Your task to perform on an android device: turn on improve location accuracy Image 0: 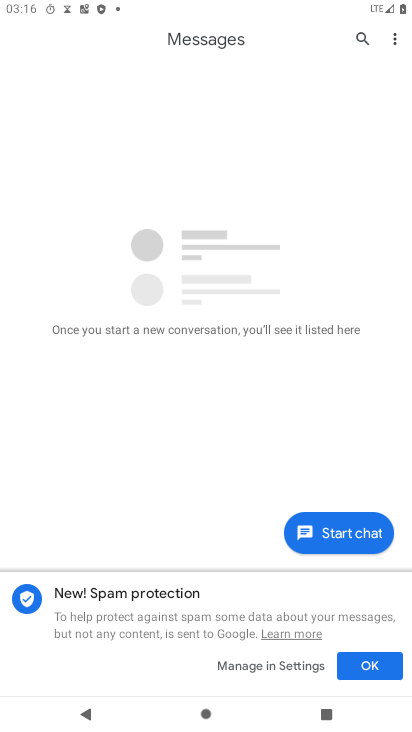
Step 0: press home button
Your task to perform on an android device: turn on improve location accuracy Image 1: 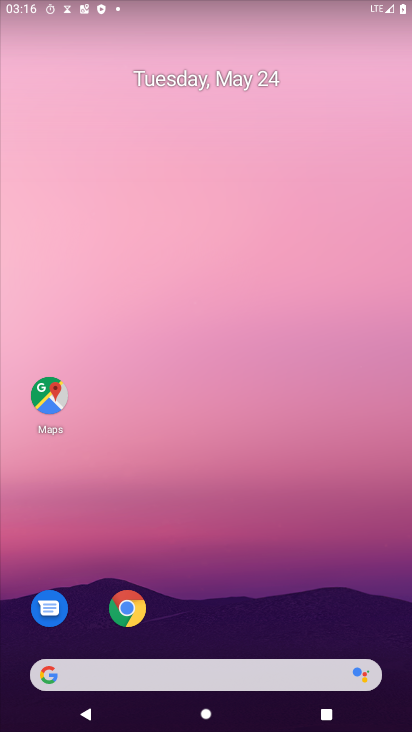
Step 1: drag from (249, 624) to (234, 213)
Your task to perform on an android device: turn on improve location accuracy Image 2: 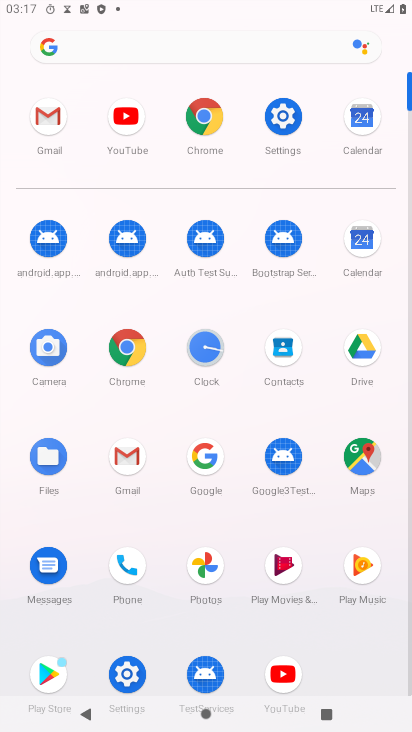
Step 2: click (287, 127)
Your task to perform on an android device: turn on improve location accuracy Image 3: 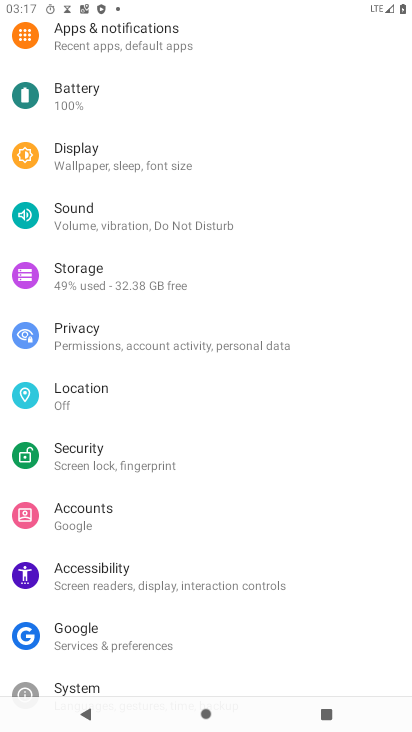
Step 3: click (147, 414)
Your task to perform on an android device: turn on improve location accuracy Image 4: 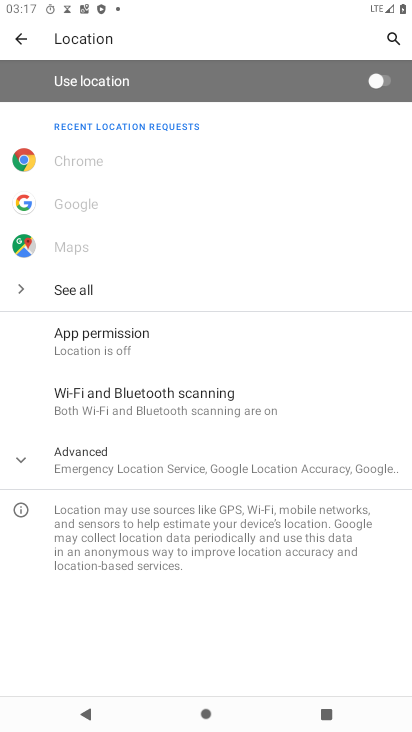
Step 4: click (165, 457)
Your task to perform on an android device: turn on improve location accuracy Image 5: 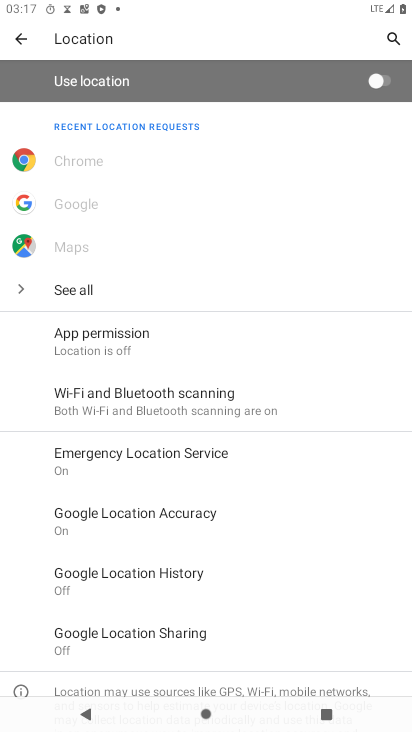
Step 5: click (208, 515)
Your task to perform on an android device: turn on improve location accuracy Image 6: 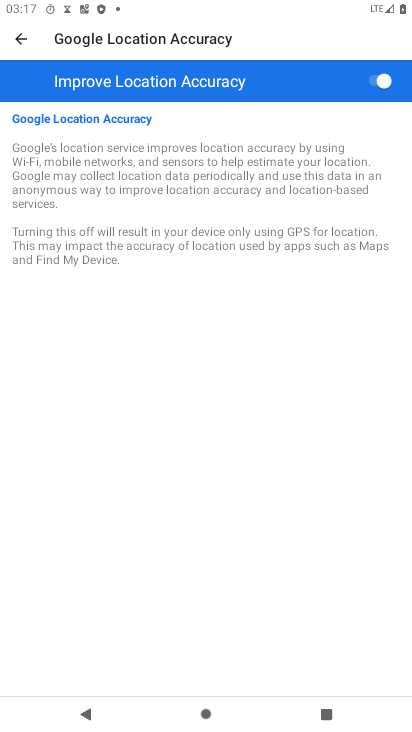
Step 6: task complete